Your task to perform on an android device: turn on improve location accuracy Image 0: 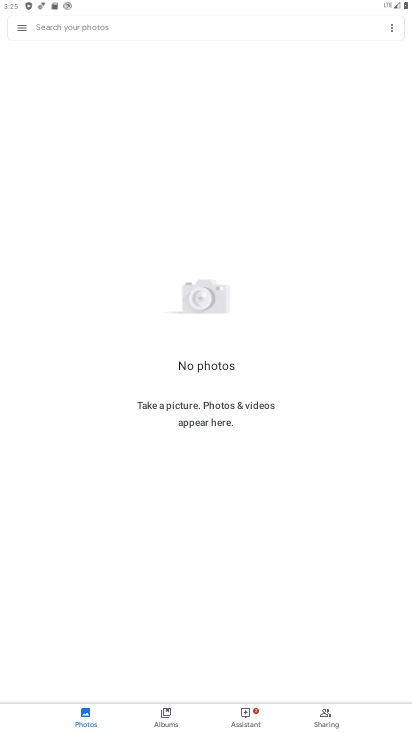
Step 0: press home button
Your task to perform on an android device: turn on improve location accuracy Image 1: 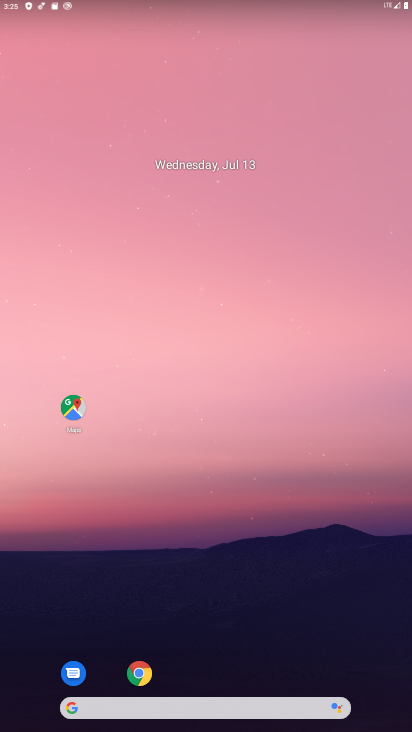
Step 1: drag from (222, 719) to (216, 120)
Your task to perform on an android device: turn on improve location accuracy Image 2: 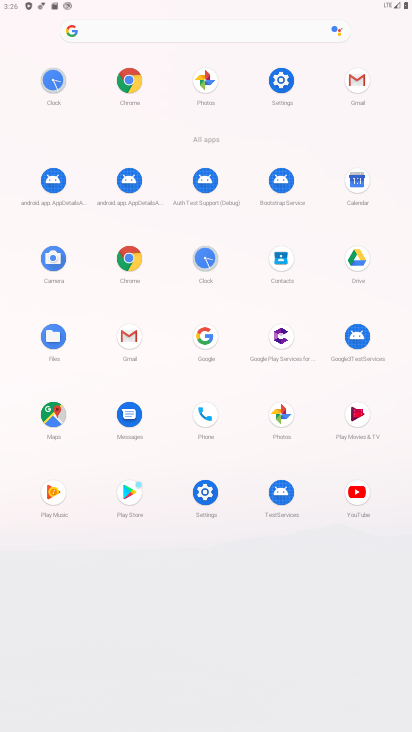
Step 2: click (285, 82)
Your task to perform on an android device: turn on improve location accuracy Image 3: 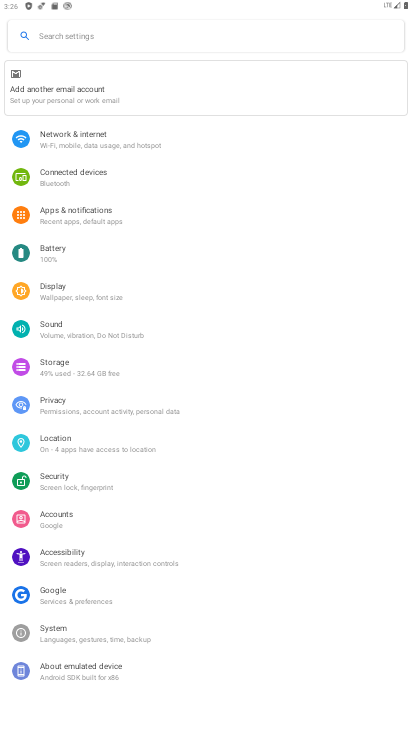
Step 3: click (65, 442)
Your task to perform on an android device: turn on improve location accuracy Image 4: 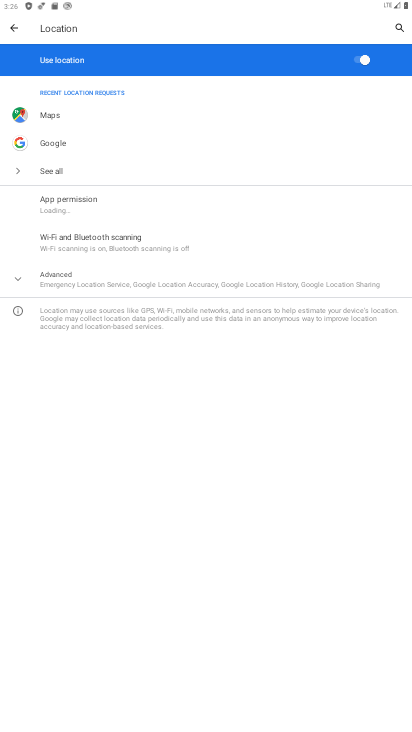
Step 4: click (100, 277)
Your task to perform on an android device: turn on improve location accuracy Image 5: 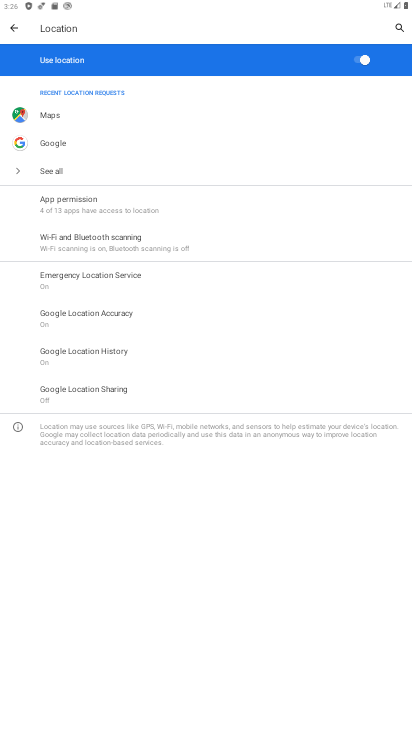
Step 5: click (115, 309)
Your task to perform on an android device: turn on improve location accuracy Image 6: 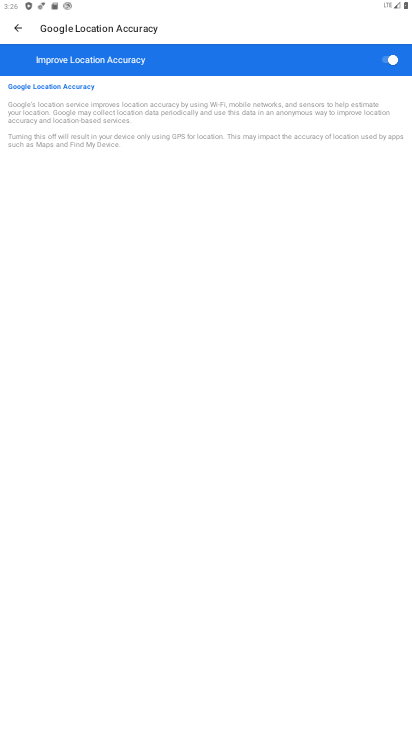
Step 6: task complete